Your task to perform on an android device: toggle show notifications on the lock screen Image 0: 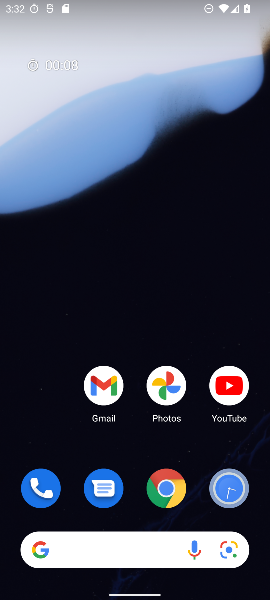
Step 0: drag from (197, 345) to (156, 14)
Your task to perform on an android device: toggle show notifications on the lock screen Image 1: 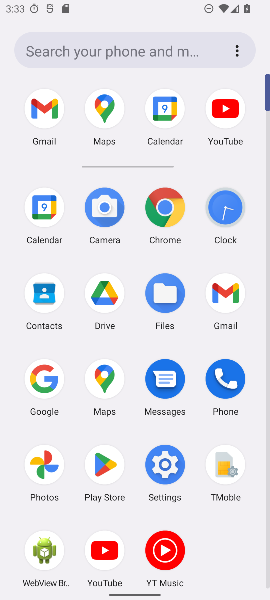
Step 1: click (165, 475)
Your task to perform on an android device: toggle show notifications on the lock screen Image 2: 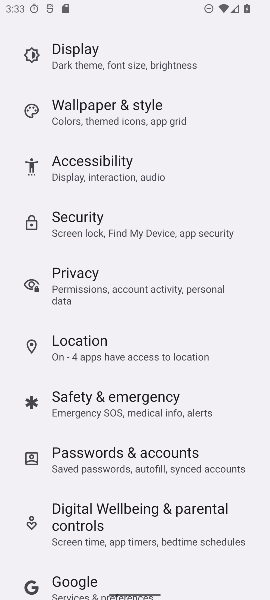
Step 2: drag from (114, 113) to (106, 188)
Your task to perform on an android device: toggle show notifications on the lock screen Image 3: 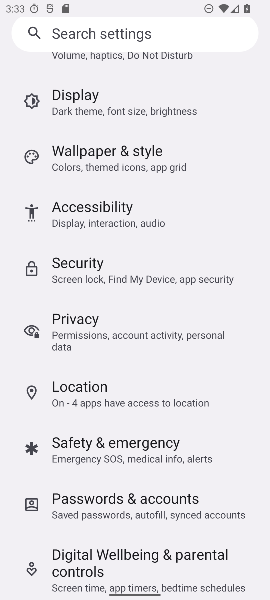
Step 3: drag from (102, 82) to (81, 471)
Your task to perform on an android device: toggle show notifications on the lock screen Image 4: 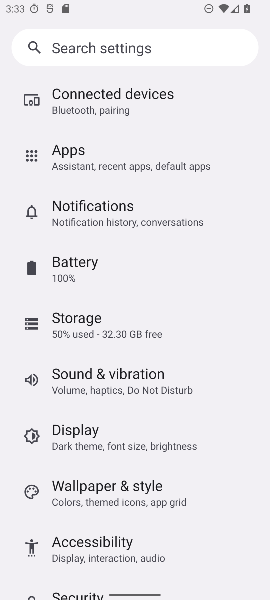
Step 4: click (101, 222)
Your task to perform on an android device: toggle show notifications on the lock screen Image 5: 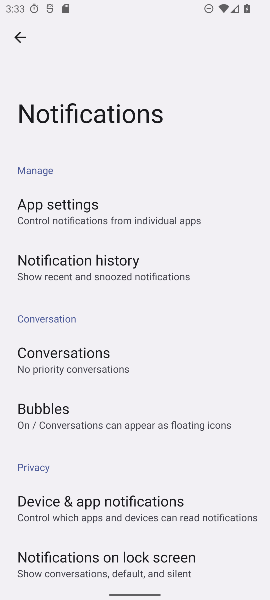
Step 5: drag from (206, 541) to (190, 247)
Your task to perform on an android device: toggle show notifications on the lock screen Image 6: 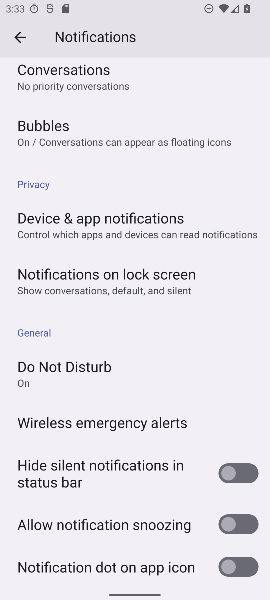
Step 6: click (200, 279)
Your task to perform on an android device: toggle show notifications on the lock screen Image 7: 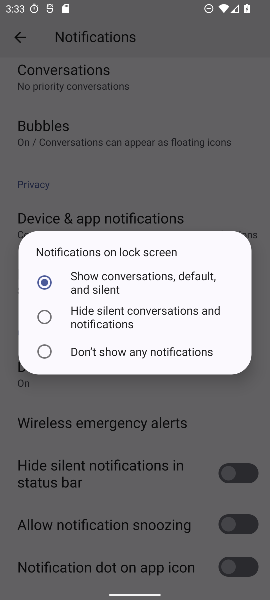
Step 7: click (193, 309)
Your task to perform on an android device: toggle show notifications on the lock screen Image 8: 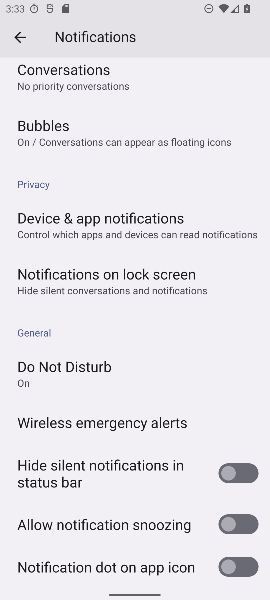
Step 8: task complete